Your task to perform on an android device: Do I have any events today? Image 0: 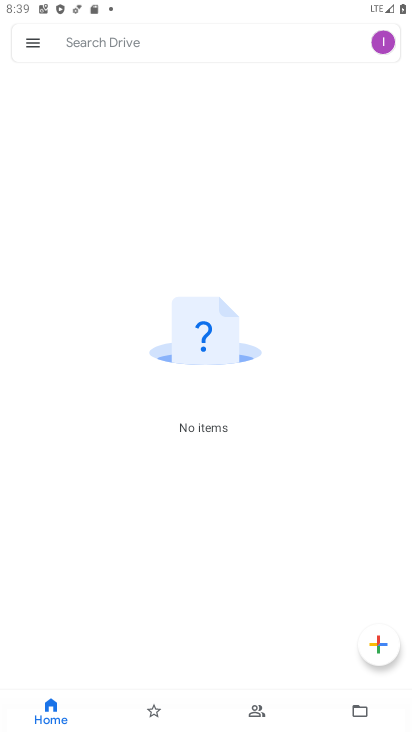
Step 0: press home button
Your task to perform on an android device: Do I have any events today? Image 1: 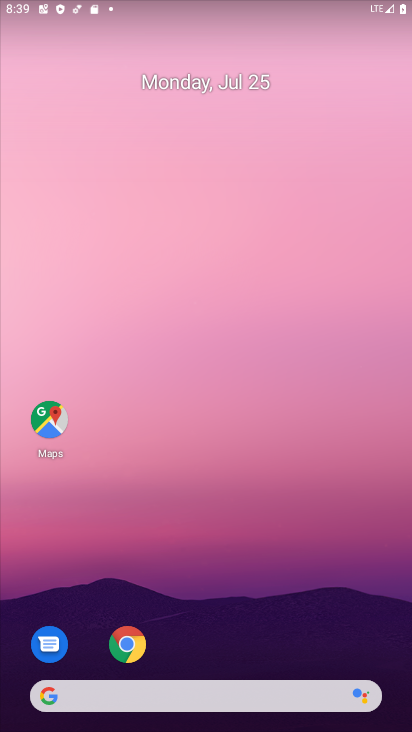
Step 1: drag from (294, 615) to (234, 181)
Your task to perform on an android device: Do I have any events today? Image 2: 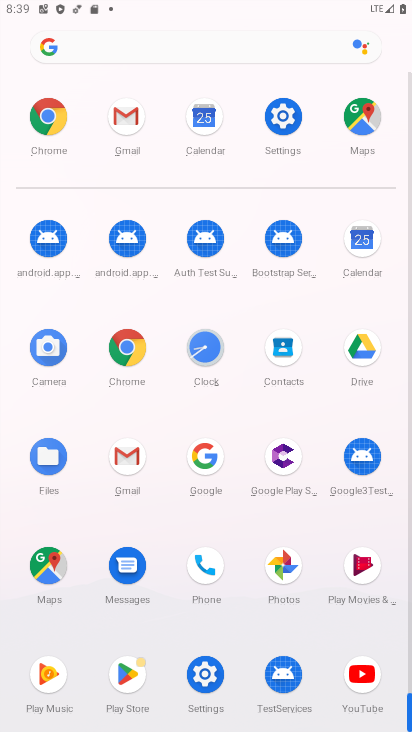
Step 2: click (362, 258)
Your task to perform on an android device: Do I have any events today? Image 3: 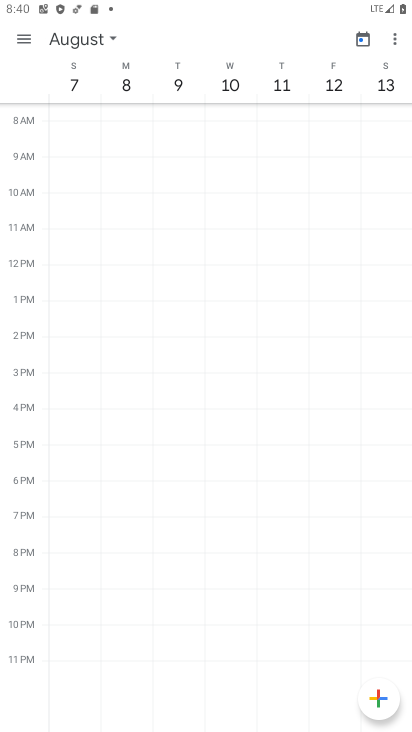
Step 3: click (9, 47)
Your task to perform on an android device: Do I have any events today? Image 4: 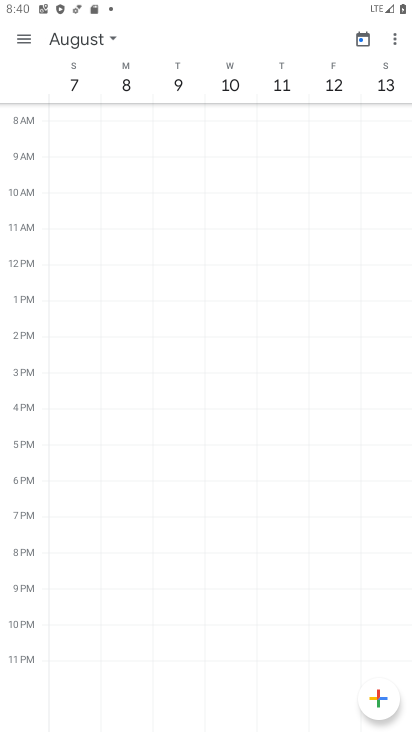
Step 4: click (30, 42)
Your task to perform on an android device: Do I have any events today? Image 5: 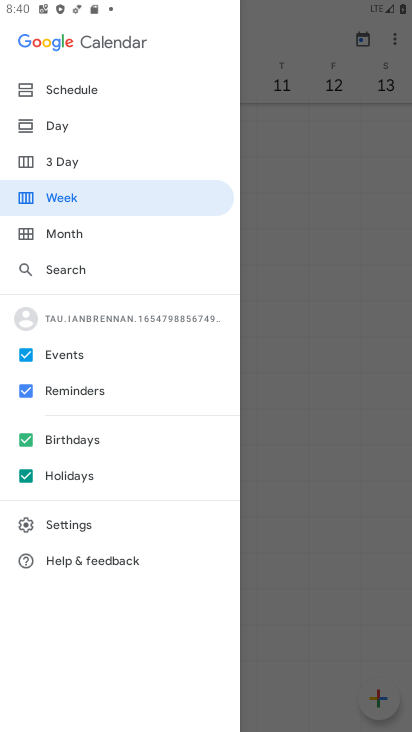
Step 5: click (63, 126)
Your task to perform on an android device: Do I have any events today? Image 6: 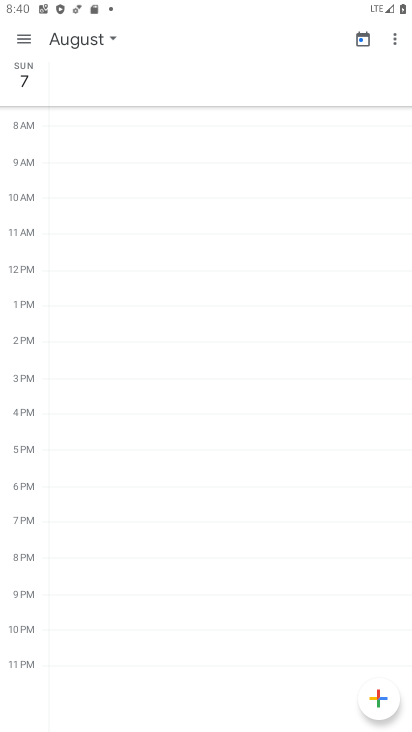
Step 6: click (72, 49)
Your task to perform on an android device: Do I have any events today? Image 7: 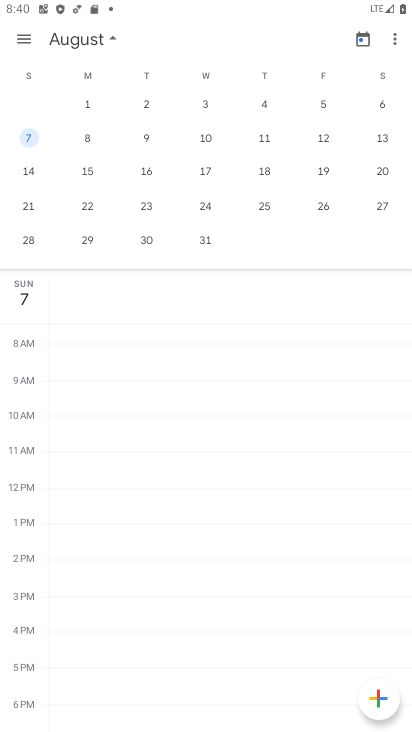
Step 7: drag from (80, 183) to (407, 176)
Your task to perform on an android device: Do I have any events today? Image 8: 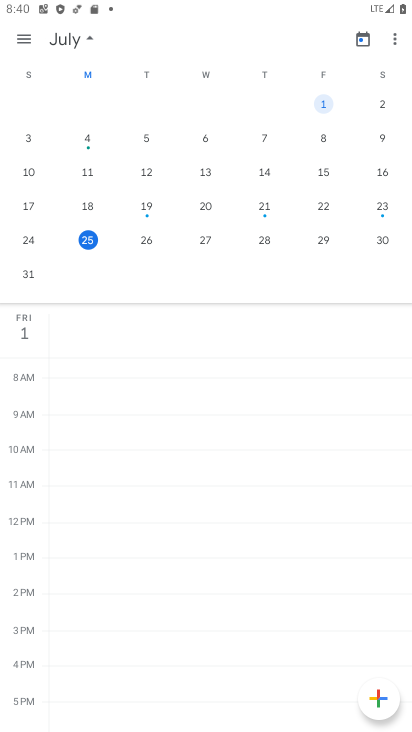
Step 8: click (87, 241)
Your task to perform on an android device: Do I have any events today? Image 9: 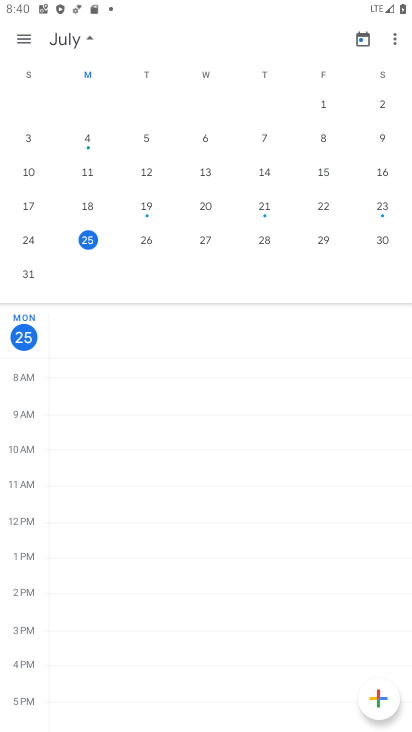
Step 9: click (72, 37)
Your task to perform on an android device: Do I have any events today? Image 10: 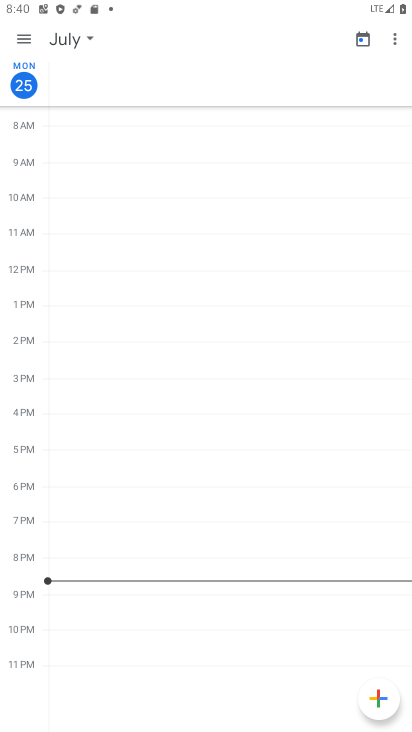
Step 10: task complete